Your task to perform on an android device: star an email in the gmail app Image 0: 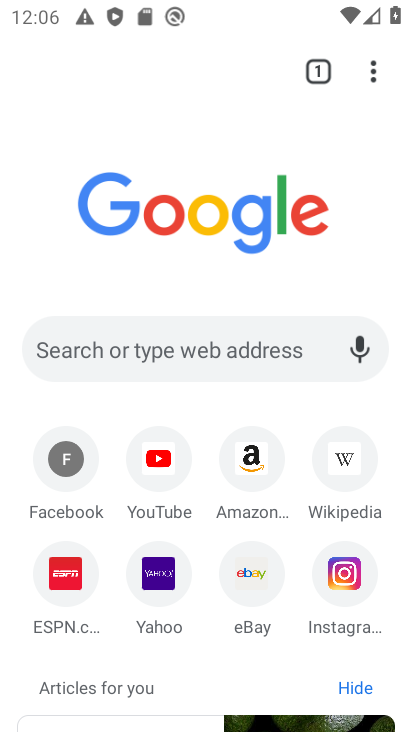
Step 0: press home button
Your task to perform on an android device: star an email in the gmail app Image 1: 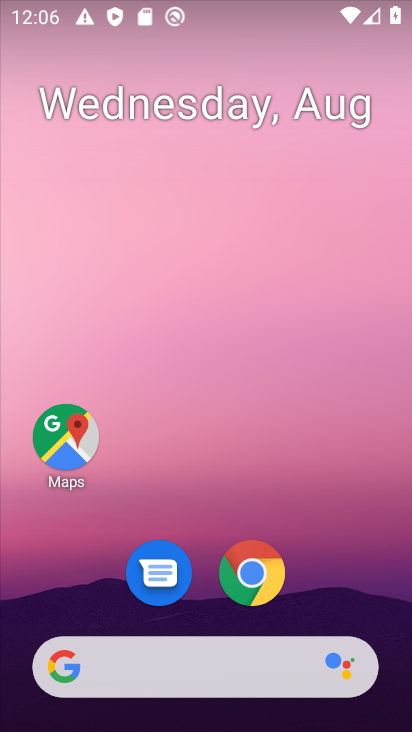
Step 1: drag from (169, 568) to (230, 44)
Your task to perform on an android device: star an email in the gmail app Image 2: 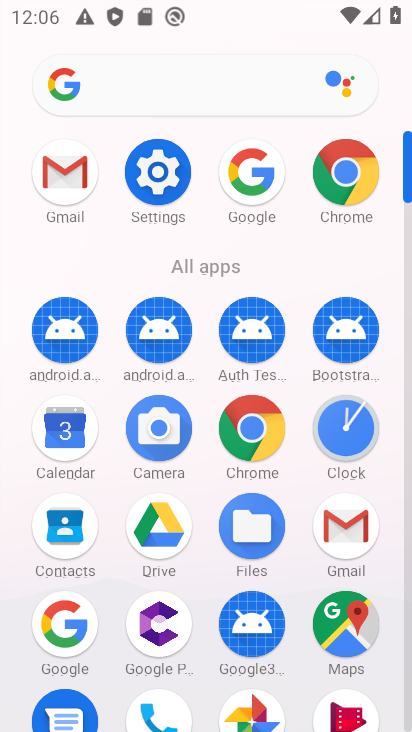
Step 2: click (345, 521)
Your task to perform on an android device: star an email in the gmail app Image 3: 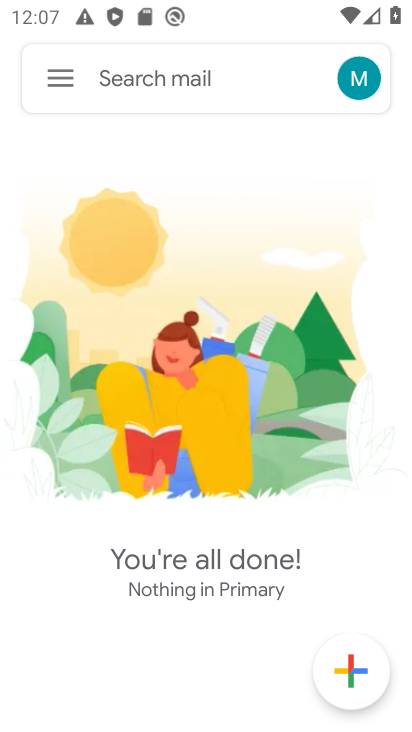
Step 3: click (65, 72)
Your task to perform on an android device: star an email in the gmail app Image 4: 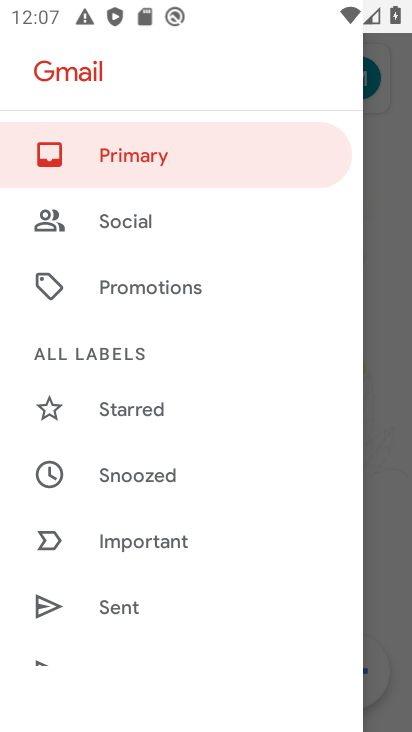
Step 4: drag from (77, 547) to (241, 207)
Your task to perform on an android device: star an email in the gmail app Image 5: 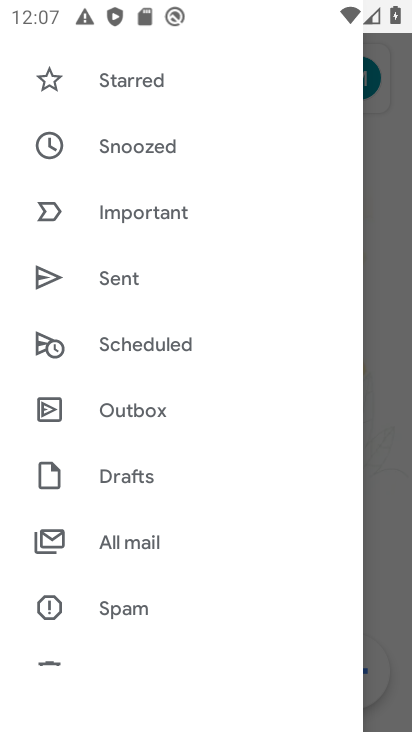
Step 5: click (117, 547)
Your task to perform on an android device: star an email in the gmail app Image 6: 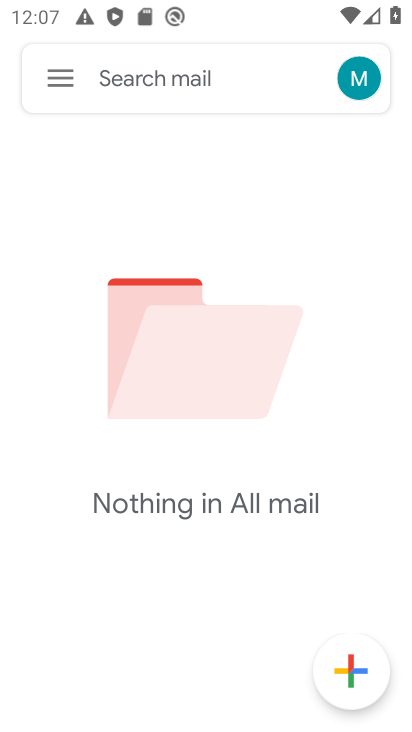
Step 6: task complete